Your task to perform on an android device: turn off data saver in the chrome app Image 0: 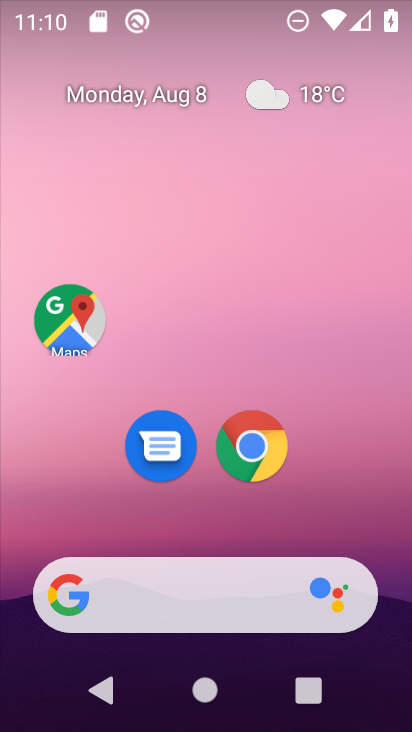
Step 0: click (255, 449)
Your task to perform on an android device: turn off data saver in the chrome app Image 1: 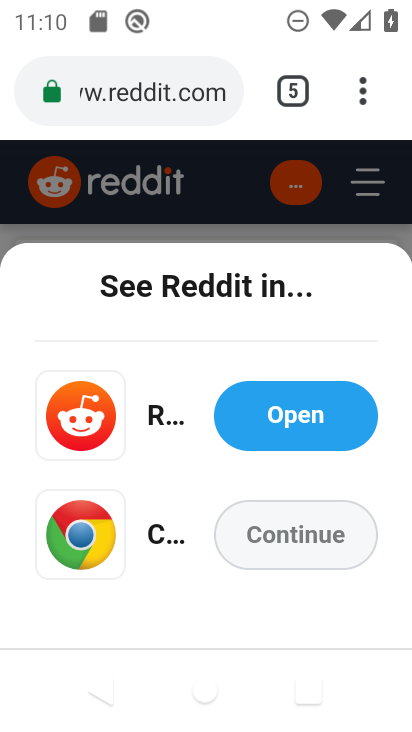
Step 1: click (355, 103)
Your task to perform on an android device: turn off data saver in the chrome app Image 2: 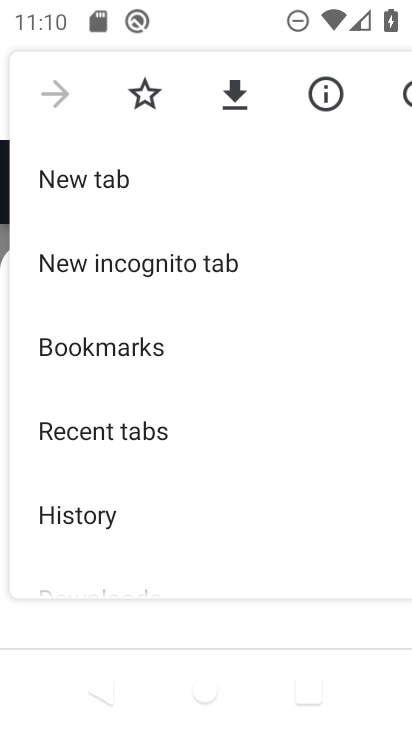
Step 2: drag from (191, 565) to (238, 202)
Your task to perform on an android device: turn off data saver in the chrome app Image 3: 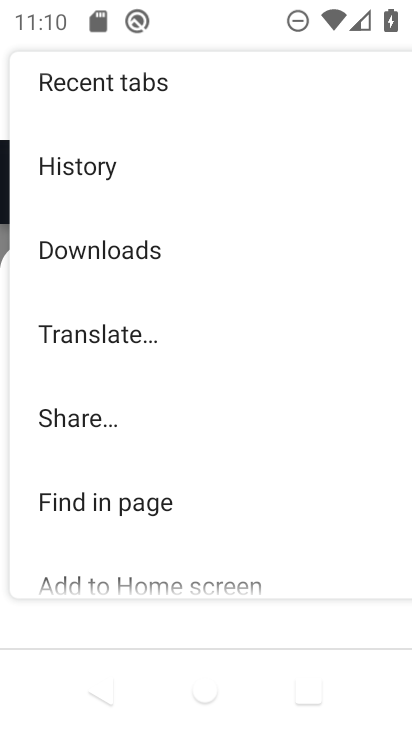
Step 3: drag from (264, 574) to (230, 184)
Your task to perform on an android device: turn off data saver in the chrome app Image 4: 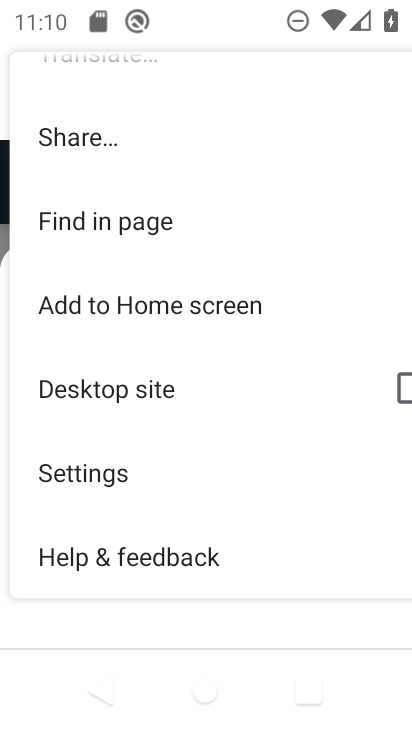
Step 4: click (99, 484)
Your task to perform on an android device: turn off data saver in the chrome app Image 5: 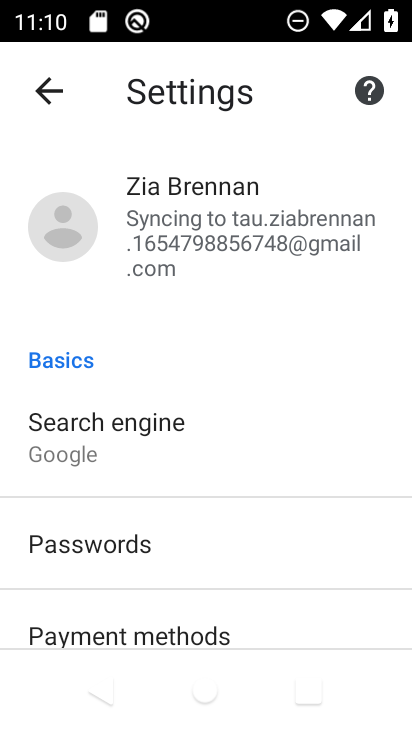
Step 5: drag from (262, 592) to (225, 202)
Your task to perform on an android device: turn off data saver in the chrome app Image 6: 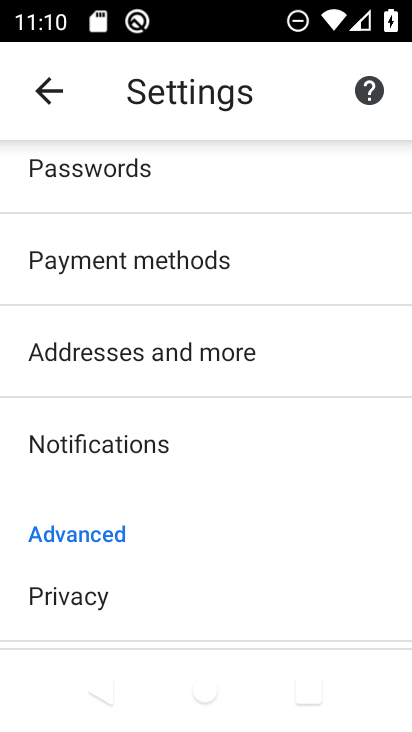
Step 6: drag from (195, 603) to (237, 190)
Your task to perform on an android device: turn off data saver in the chrome app Image 7: 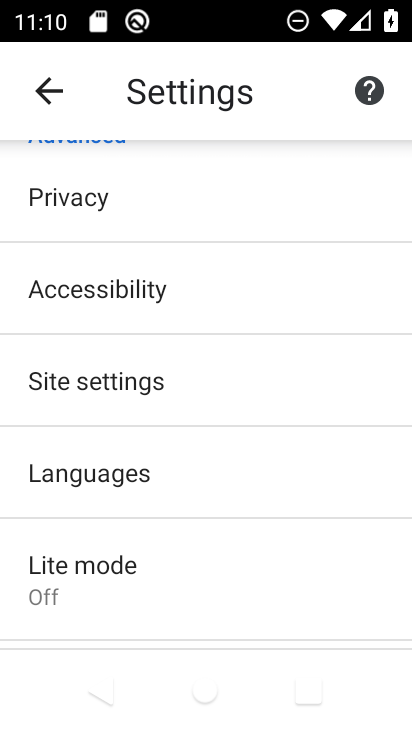
Step 7: click (79, 577)
Your task to perform on an android device: turn off data saver in the chrome app Image 8: 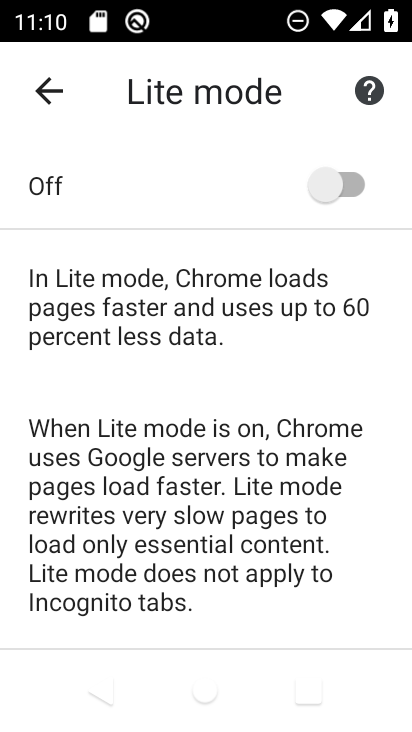
Step 8: task complete